Your task to perform on an android device: What's the weather today? Image 0: 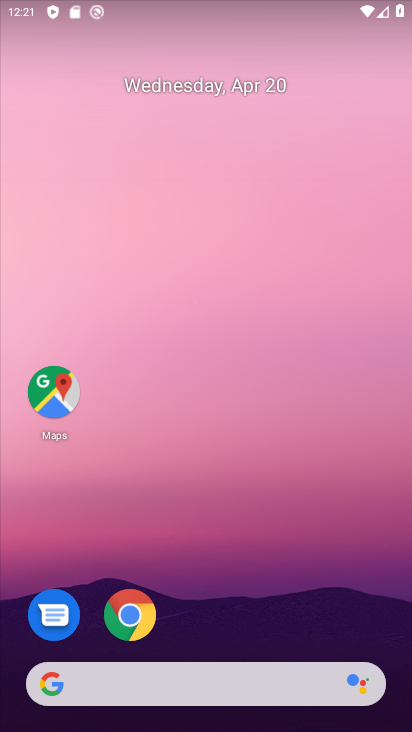
Step 0: drag from (239, 565) to (234, 110)
Your task to perform on an android device: What's the weather today? Image 1: 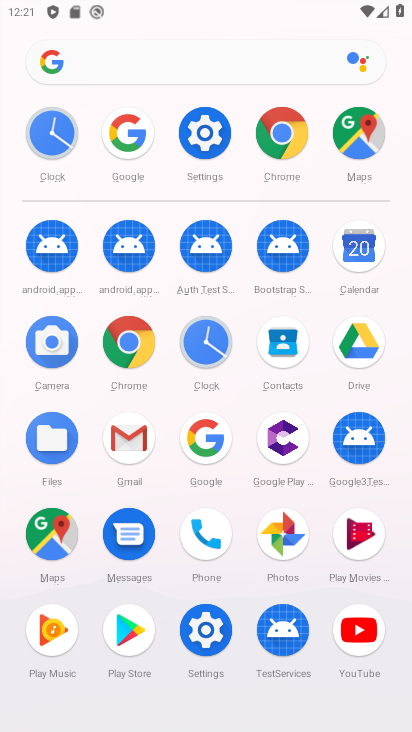
Step 1: click (127, 134)
Your task to perform on an android device: What's the weather today? Image 2: 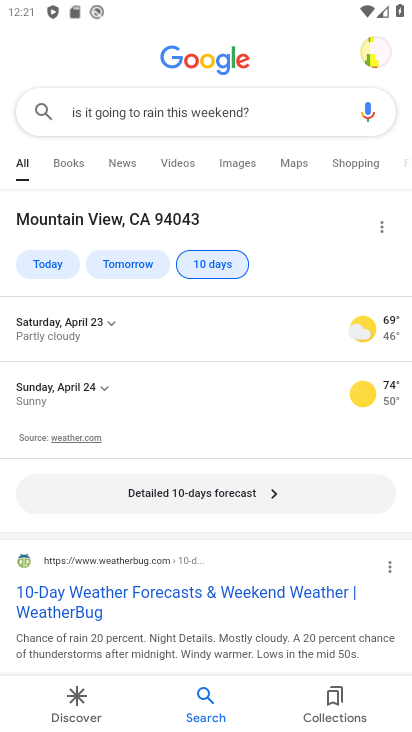
Step 2: click (299, 112)
Your task to perform on an android device: What's the weather today? Image 3: 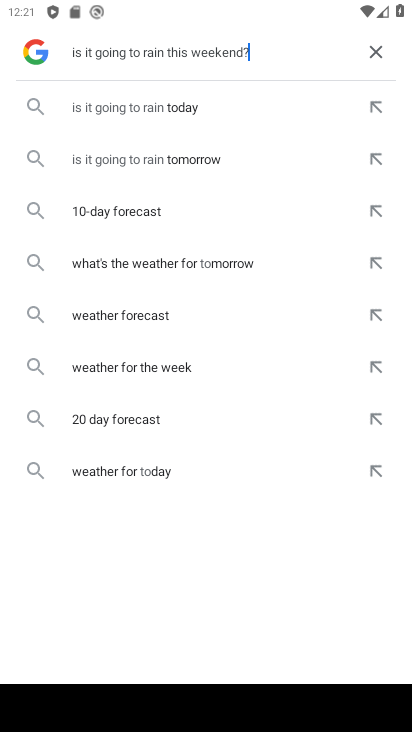
Step 3: click (370, 51)
Your task to perform on an android device: What's the weather today? Image 4: 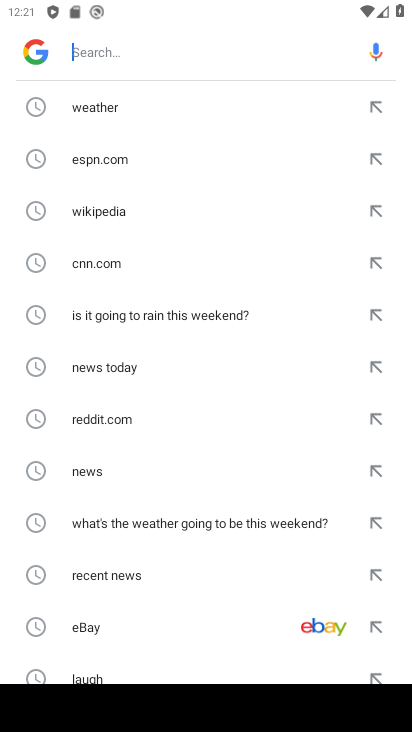
Step 4: type "weather today"
Your task to perform on an android device: What's the weather today? Image 5: 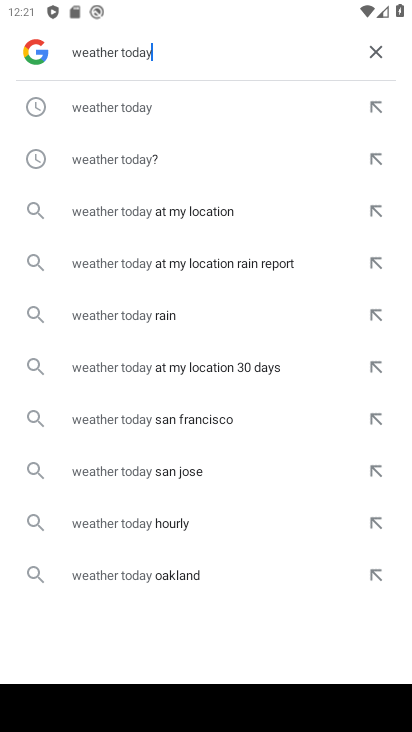
Step 5: click (137, 121)
Your task to perform on an android device: What's the weather today? Image 6: 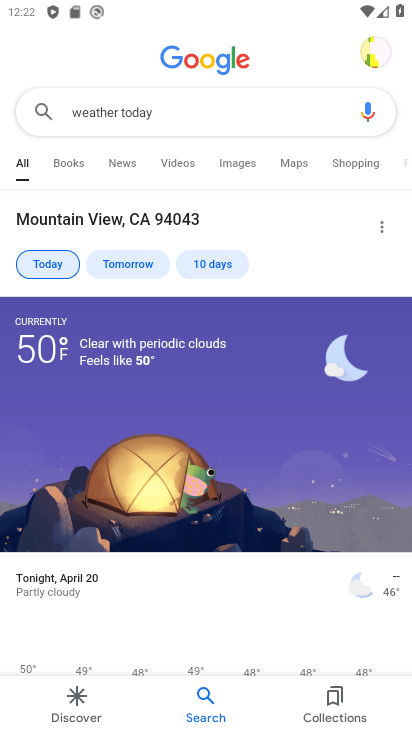
Step 6: task complete